Your task to perform on an android device: Open Youtube and go to the subscriptions tab Image 0: 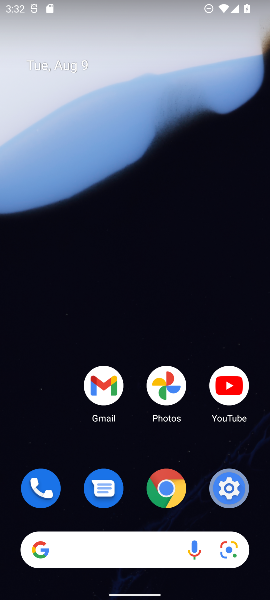
Step 0: drag from (204, 355) to (151, 55)
Your task to perform on an android device: Open Youtube and go to the subscriptions tab Image 1: 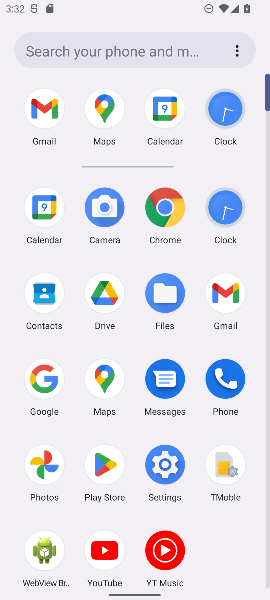
Step 1: click (93, 558)
Your task to perform on an android device: Open Youtube and go to the subscriptions tab Image 2: 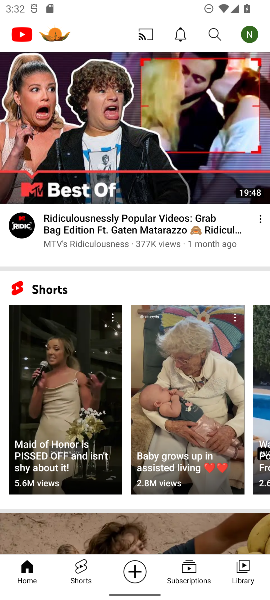
Step 2: click (198, 576)
Your task to perform on an android device: Open Youtube and go to the subscriptions tab Image 3: 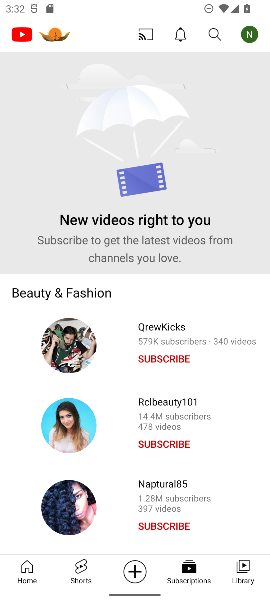
Step 3: task complete